Your task to perform on an android device: Open settings Image 0: 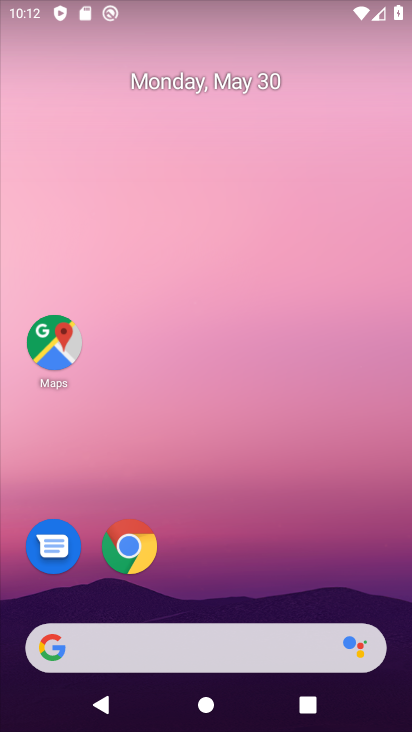
Step 0: drag from (214, 598) to (221, 63)
Your task to perform on an android device: Open settings Image 1: 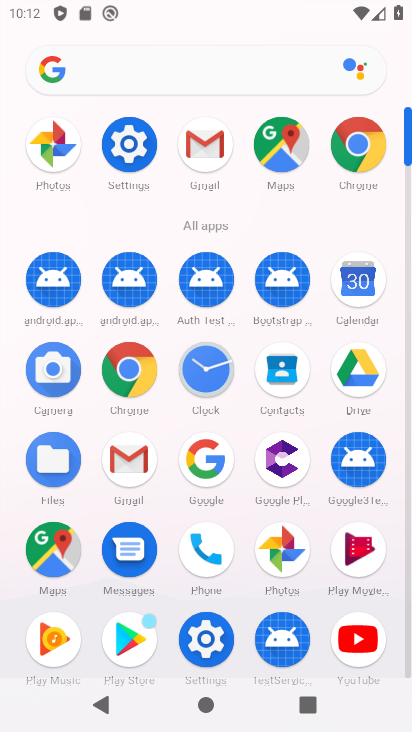
Step 1: click (124, 141)
Your task to perform on an android device: Open settings Image 2: 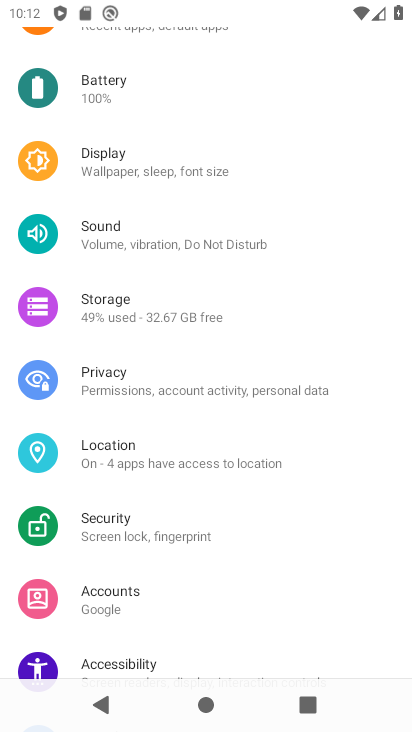
Step 2: task complete